Your task to perform on an android device: Open Android settings Image 0: 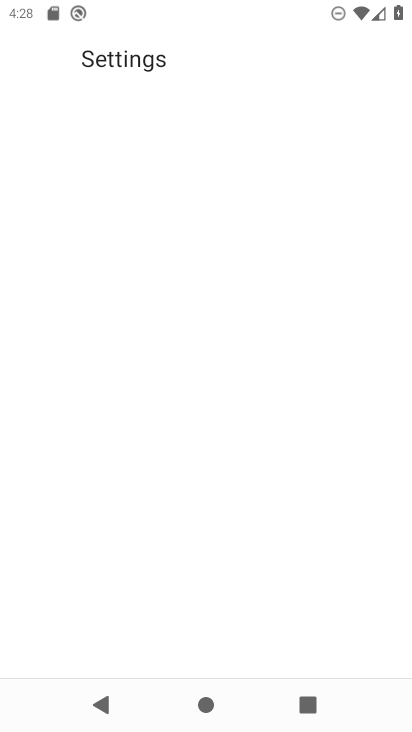
Step 0: drag from (232, 616) to (192, 356)
Your task to perform on an android device: Open Android settings Image 1: 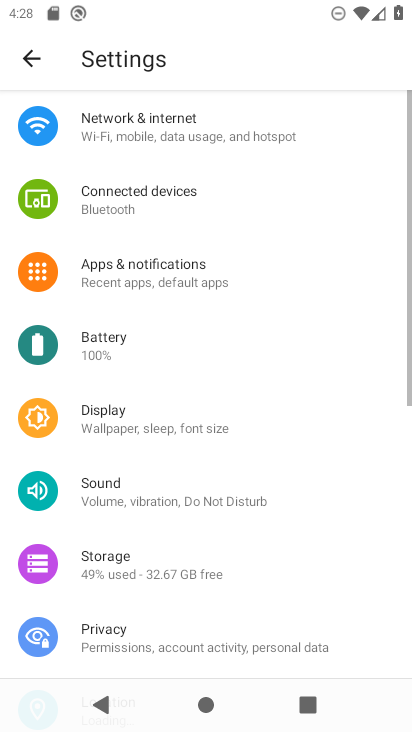
Step 1: task complete